Your task to perform on an android device: Turn off the flashlight Image 0: 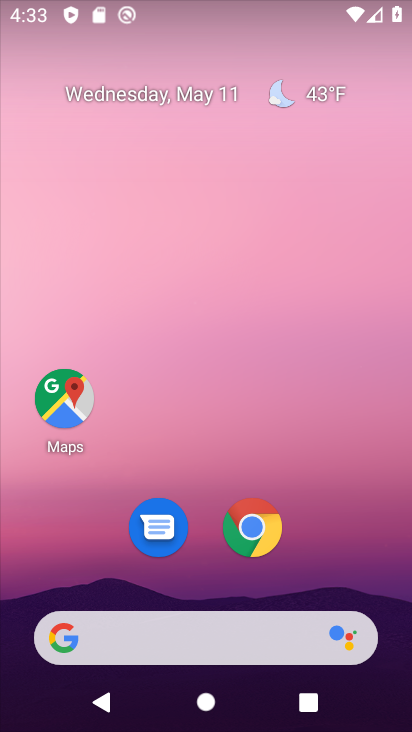
Step 0: drag from (289, 16) to (280, 607)
Your task to perform on an android device: Turn off the flashlight Image 1: 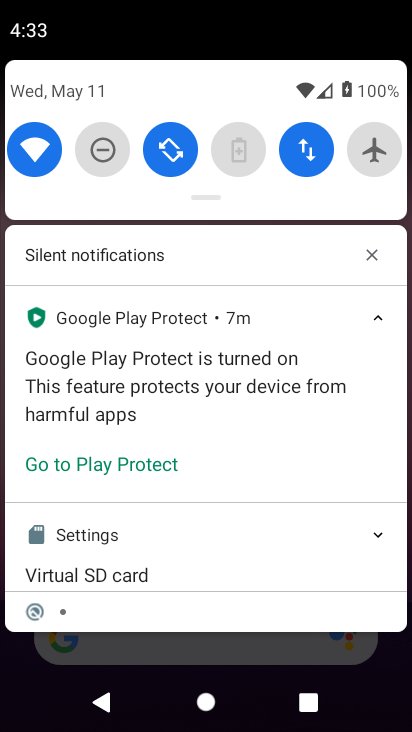
Step 1: task complete